Your task to perform on an android device: Play the last video I watched on Youtube Image 0: 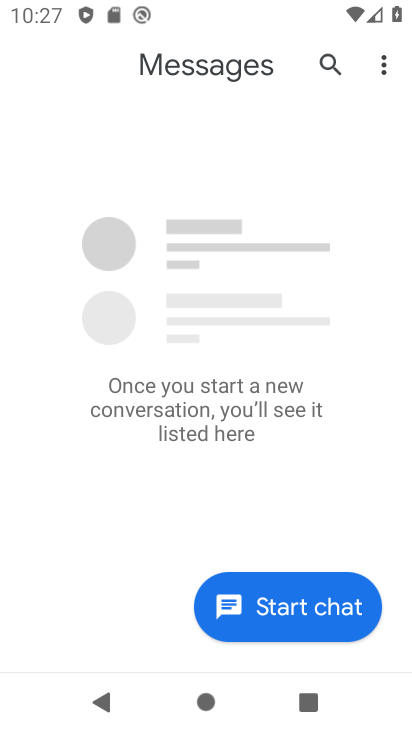
Step 0: press back button
Your task to perform on an android device: Play the last video I watched on Youtube Image 1: 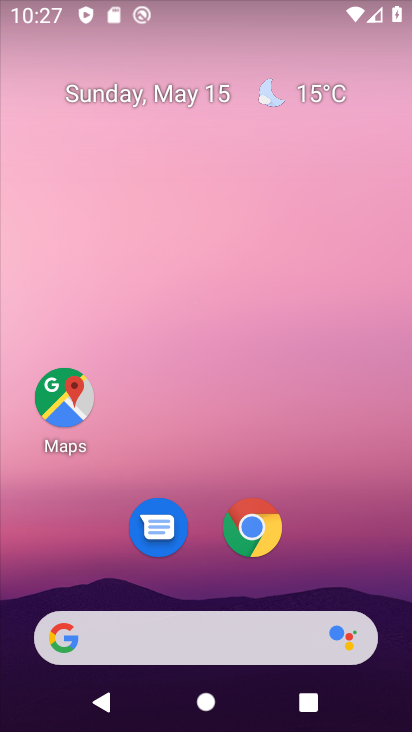
Step 1: drag from (342, 553) to (285, 35)
Your task to perform on an android device: Play the last video I watched on Youtube Image 2: 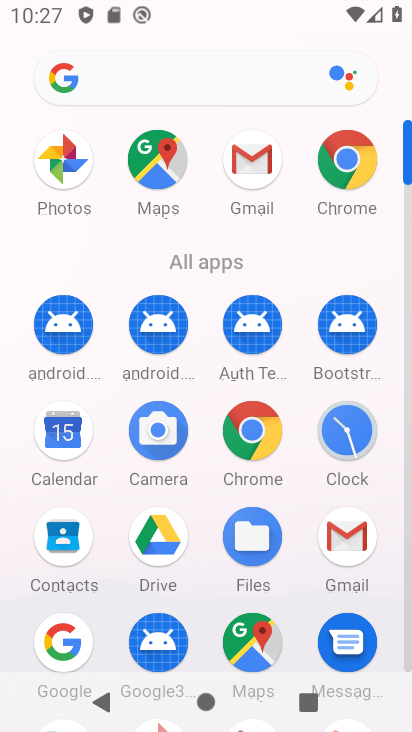
Step 2: drag from (203, 532) to (190, 265)
Your task to perform on an android device: Play the last video I watched on Youtube Image 3: 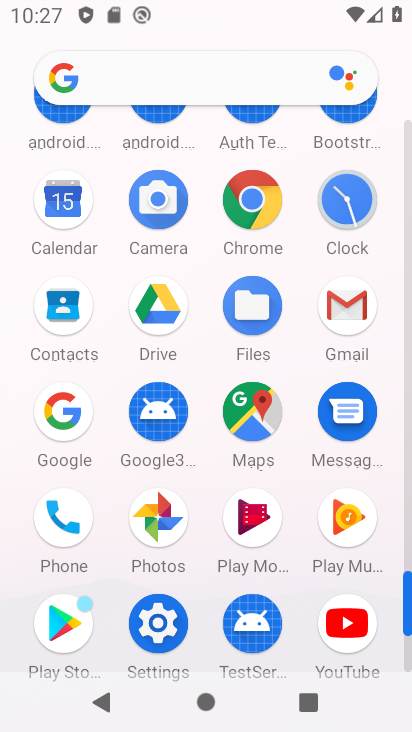
Step 3: click (347, 625)
Your task to perform on an android device: Play the last video I watched on Youtube Image 4: 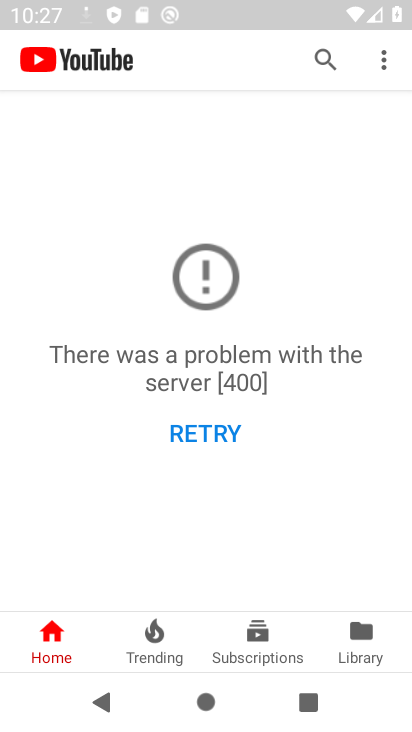
Step 4: click (210, 441)
Your task to perform on an android device: Play the last video I watched on Youtube Image 5: 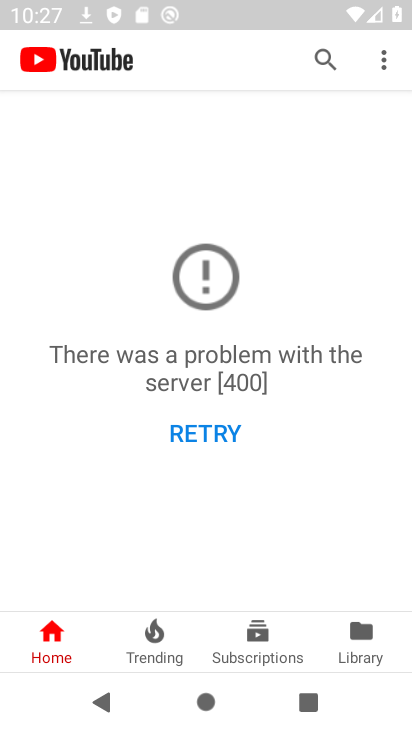
Step 5: click (206, 437)
Your task to perform on an android device: Play the last video I watched on Youtube Image 6: 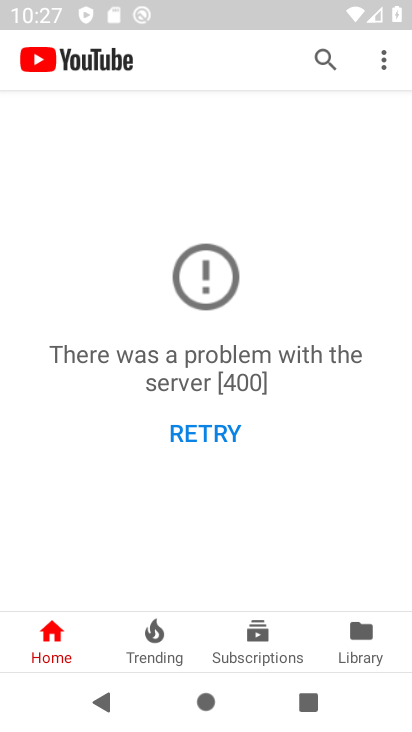
Step 6: click (352, 635)
Your task to perform on an android device: Play the last video I watched on Youtube Image 7: 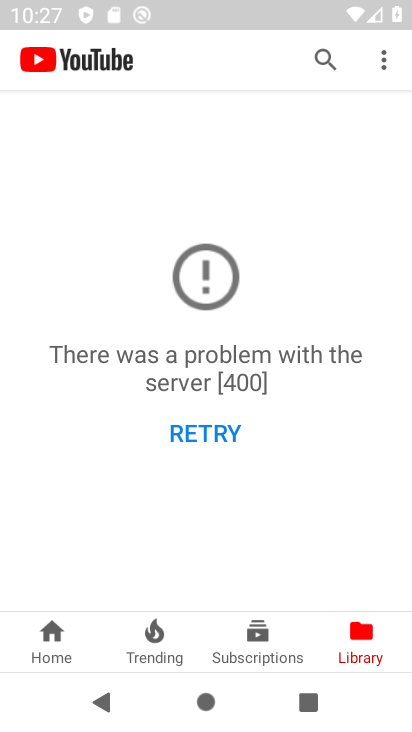
Step 7: click (204, 440)
Your task to perform on an android device: Play the last video I watched on Youtube Image 8: 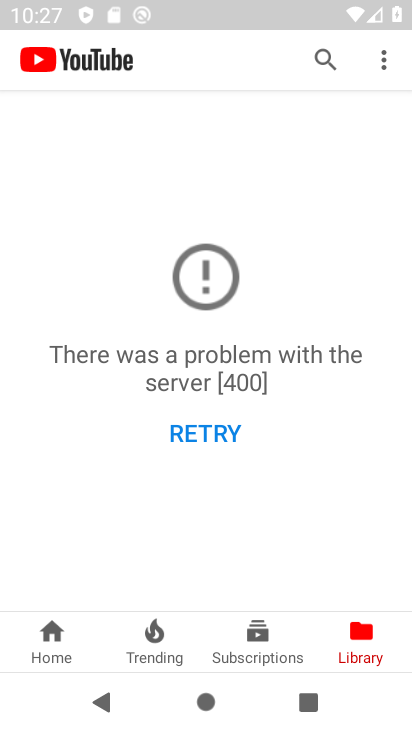
Step 8: click (204, 440)
Your task to perform on an android device: Play the last video I watched on Youtube Image 9: 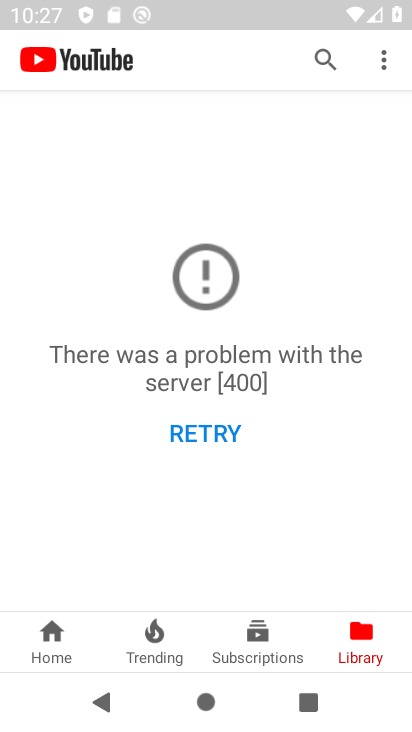
Step 9: click (202, 432)
Your task to perform on an android device: Play the last video I watched on Youtube Image 10: 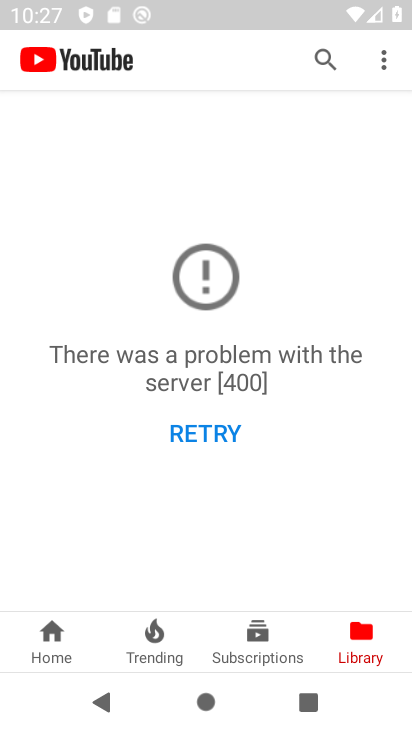
Step 10: click (202, 432)
Your task to perform on an android device: Play the last video I watched on Youtube Image 11: 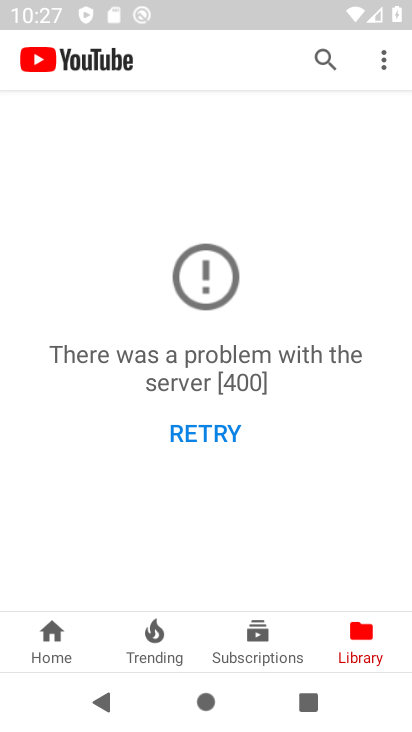
Step 11: task complete